Your task to perform on an android device: Open Maps and search for coffee Image 0: 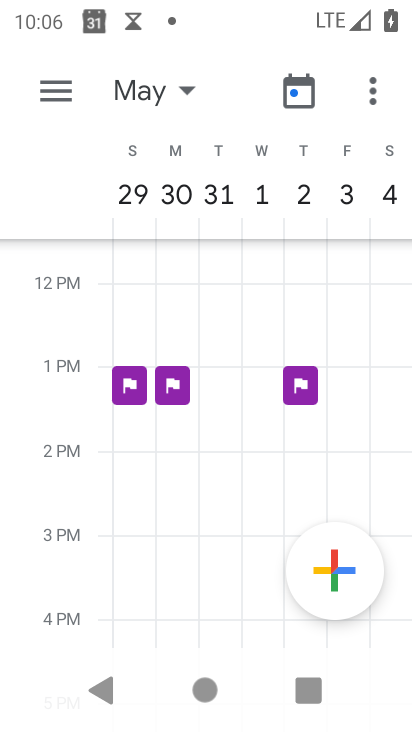
Step 0: press home button
Your task to perform on an android device: Open Maps and search for coffee Image 1: 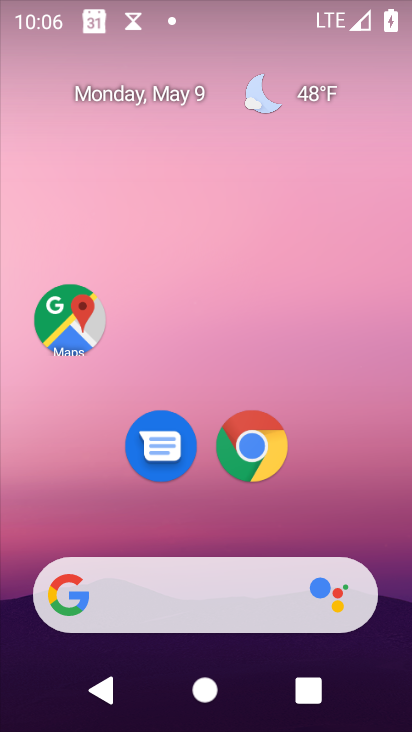
Step 1: click (79, 310)
Your task to perform on an android device: Open Maps and search for coffee Image 2: 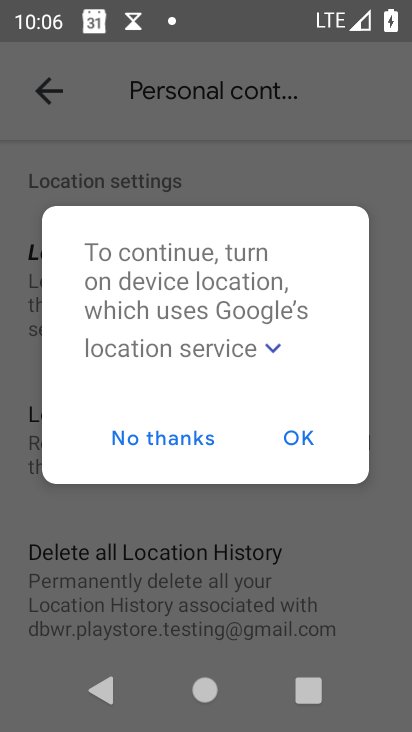
Step 2: click (56, 92)
Your task to perform on an android device: Open Maps and search for coffee Image 3: 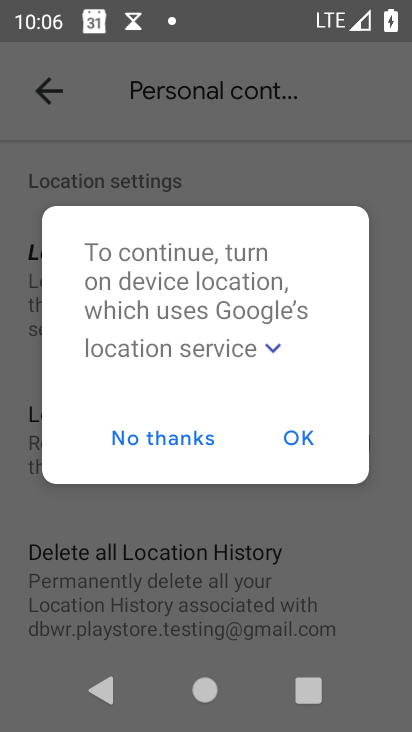
Step 3: click (296, 447)
Your task to perform on an android device: Open Maps and search for coffee Image 4: 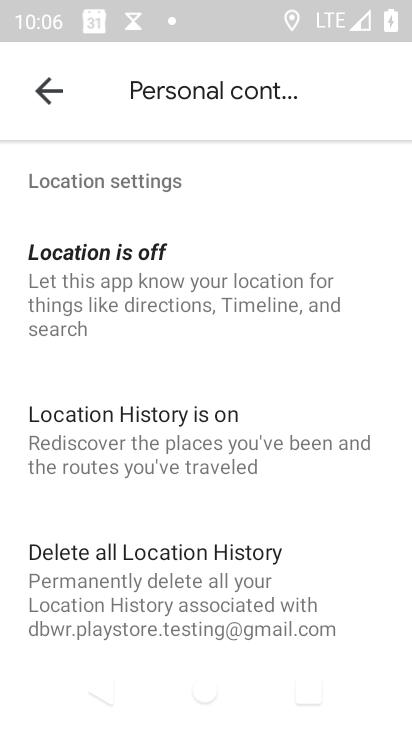
Step 4: click (50, 90)
Your task to perform on an android device: Open Maps and search for coffee Image 5: 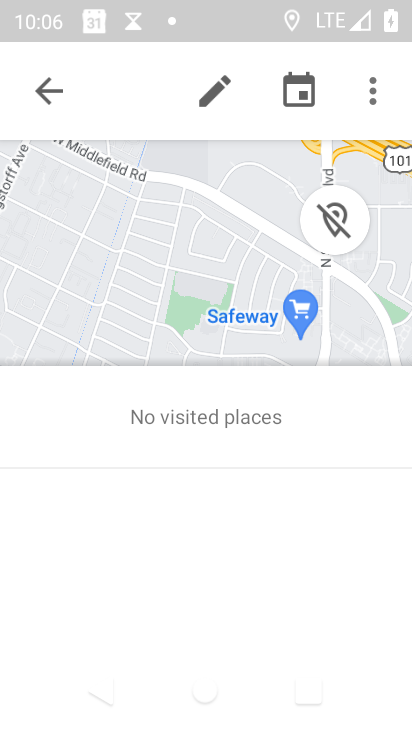
Step 5: click (50, 90)
Your task to perform on an android device: Open Maps and search for coffee Image 6: 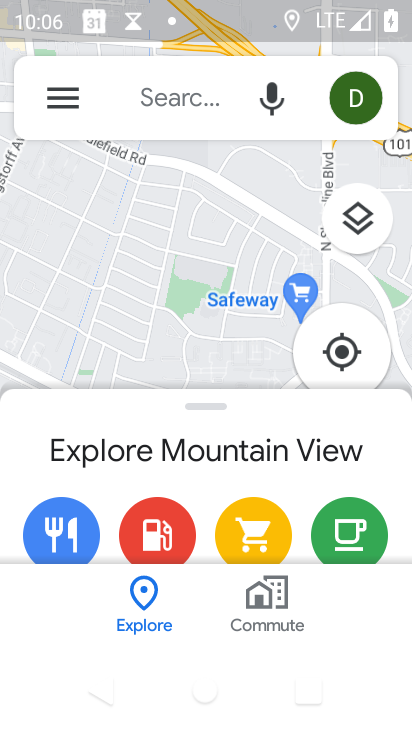
Step 6: click (158, 102)
Your task to perform on an android device: Open Maps and search for coffee Image 7: 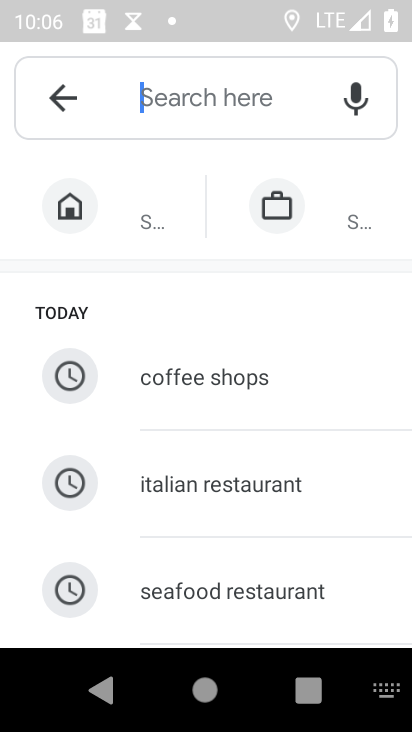
Step 7: type "coffee"
Your task to perform on an android device: Open Maps and search for coffee Image 8: 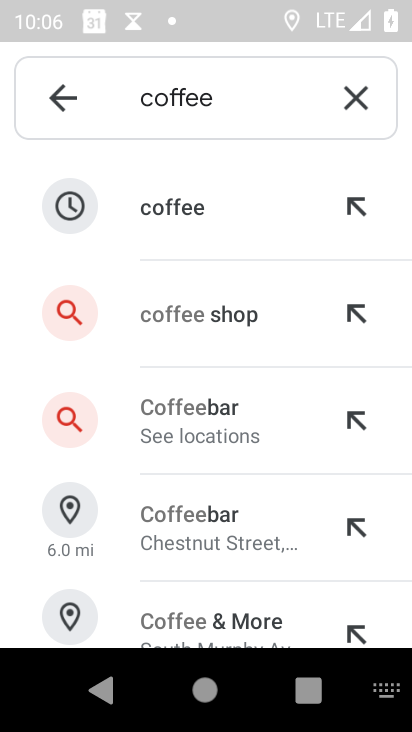
Step 8: click (174, 210)
Your task to perform on an android device: Open Maps and search for coffee Image 9: 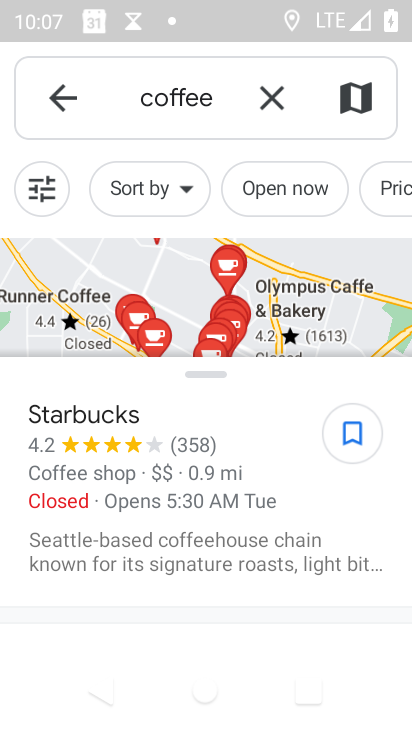
Step 9: task complete